Your task to perform on an android device: manage bookmarks in the chrome app Image 0: 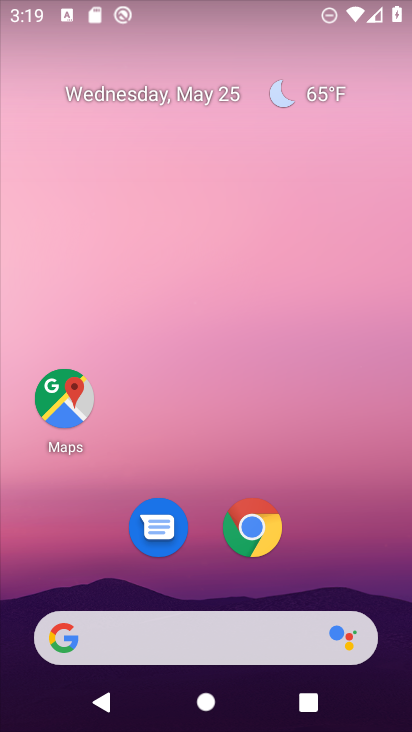
Step 0: drag from (281, 580) to (296, 27)
Your task to perform on an android device: manage bookmarks in the chrome app Image 1: 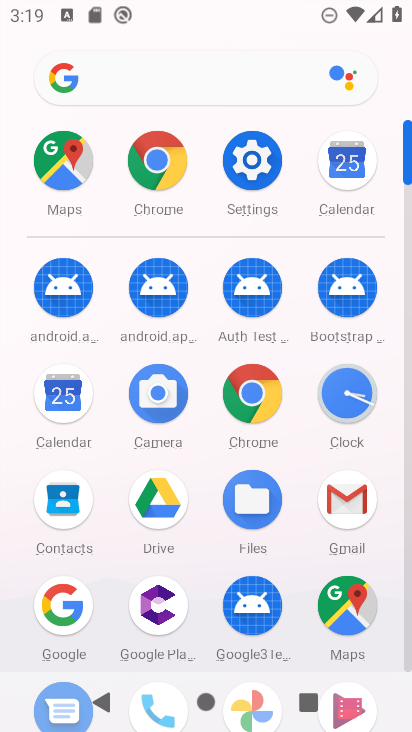
Step 1: click (266, 401)
Your task to perform on an android device: manage bookmarks in the chrome app Image 2: 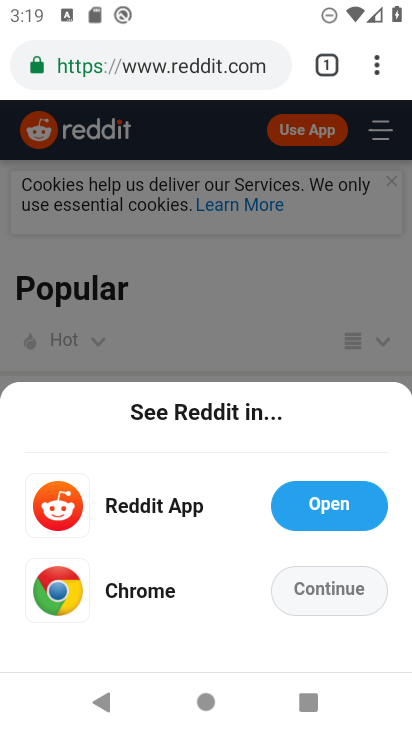
Step 2: task complete